Your task to perform on an android device: Add beats solo 3 to the cart on costco.com, then select checkout. Image 0: 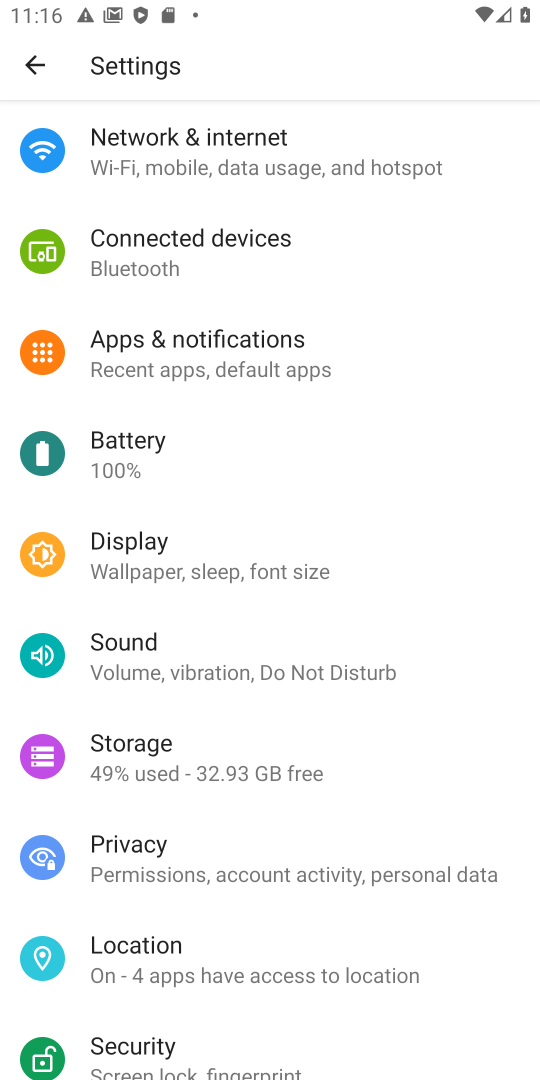
Step 0: press home button
Your task to perform on an android device: Add beats solo 3 to the cart on costco.com, then select checkout. Image 1: 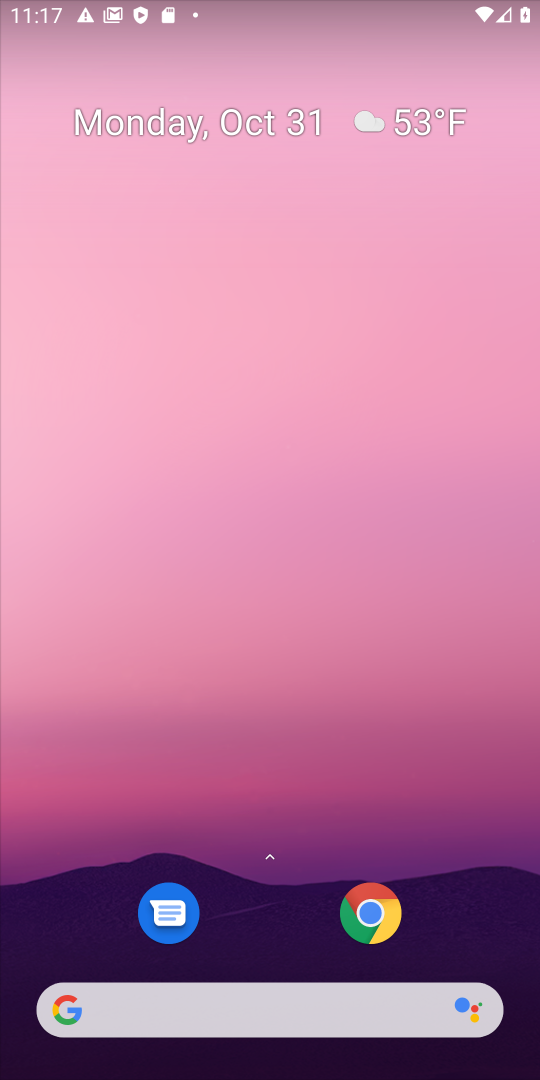
Step 1: click (289, 1024)
Your task to perform on an android device: Add beats solo 3 to the cart on costco.com, then select checkout. Image 2: 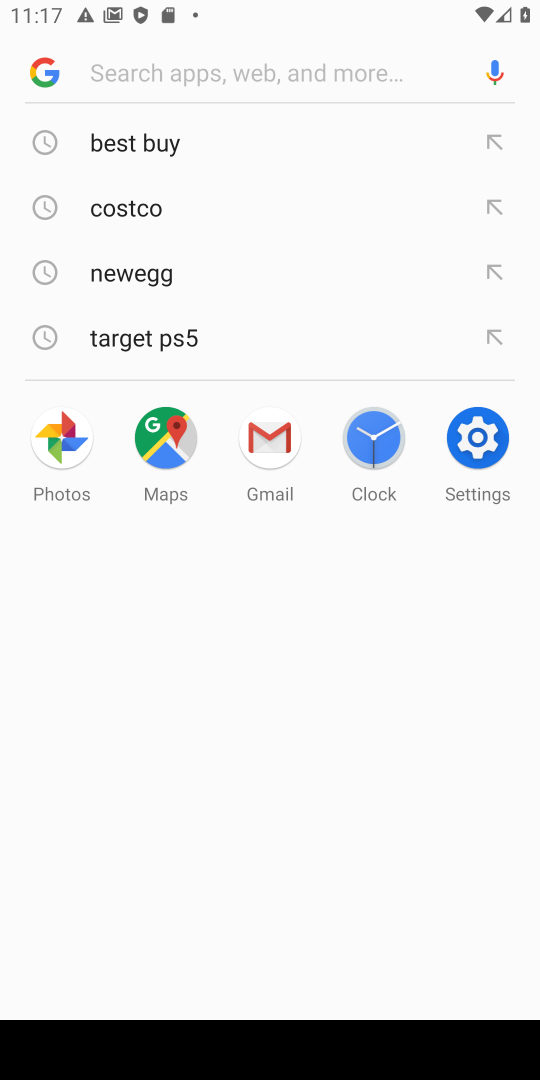
Step 2: click (112, 142)
Your task to perform on an android device: Add beats solo 3 to the cart on costco.com, then select checkout. Image 3: 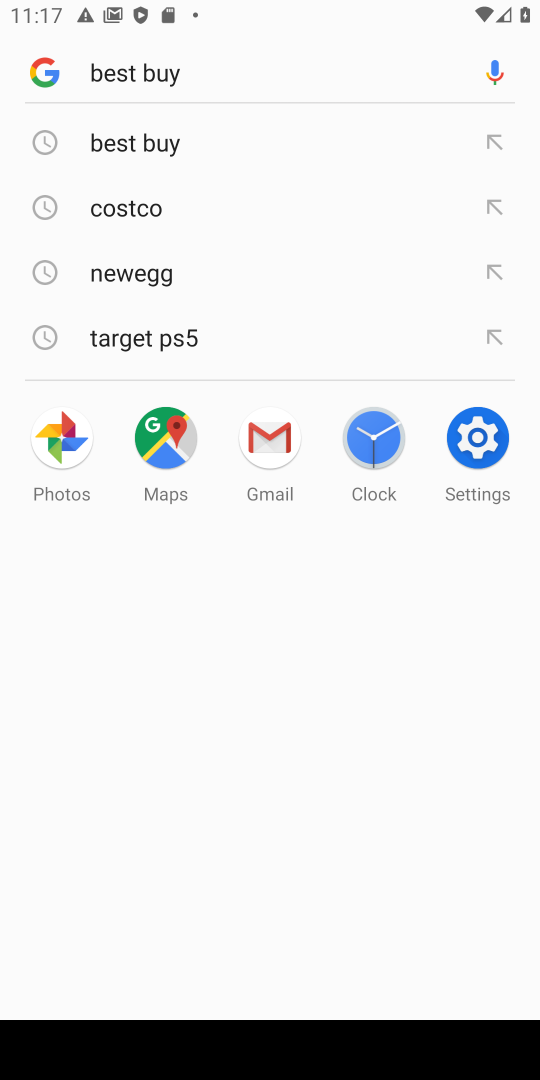
Step 3: task complete